Your task to perform on an android device: find snoozed emails in the gmail app Image 0: 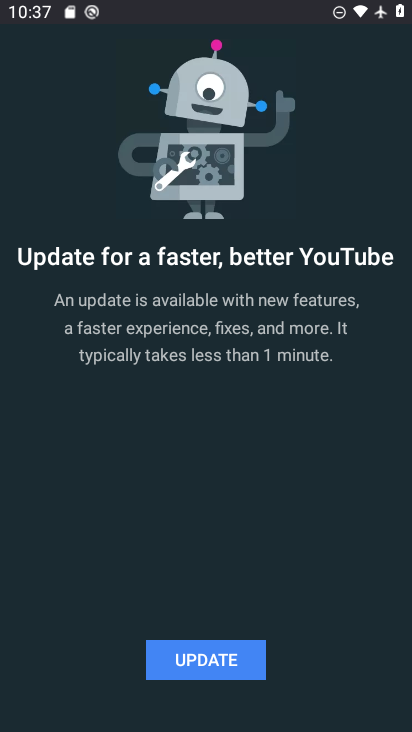
Step 0: press home button
Your task to perform on an android device: find snoozed emails in the gmail app Image 1: 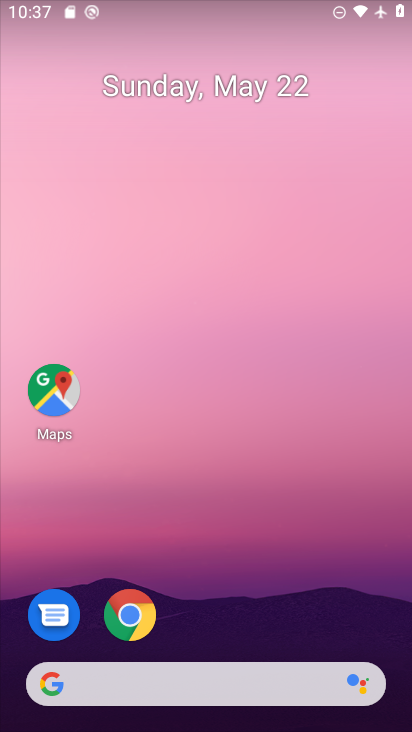
Step 1: drag from (290, 539) to (238, 52)
Your task to perform on an android device: find snoozed emails in the gmail app Image 2: 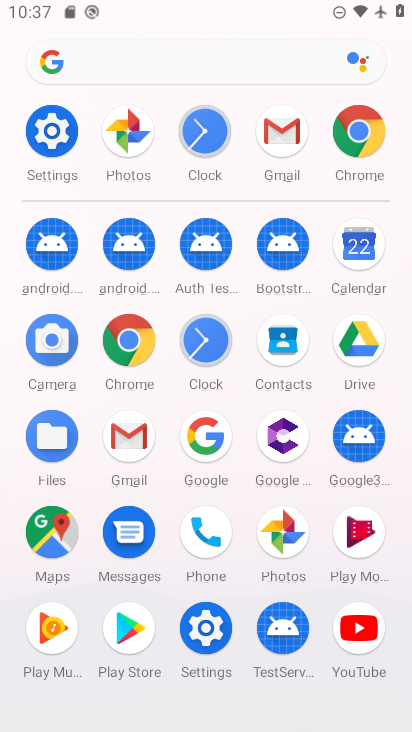
Step 2: click (292, 107)
Your task to perform on an android device: find snoozed emails in the gmail app Image 3: 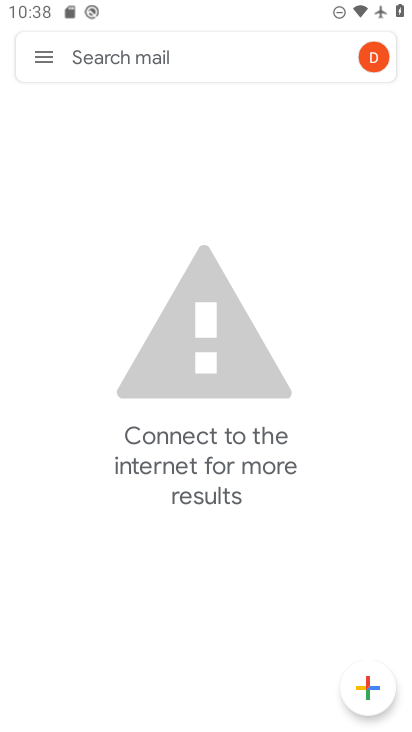
Step 3: click (32, 55)
Your task to perform on an android device: find snoozed emails in the gmail app Image 4: 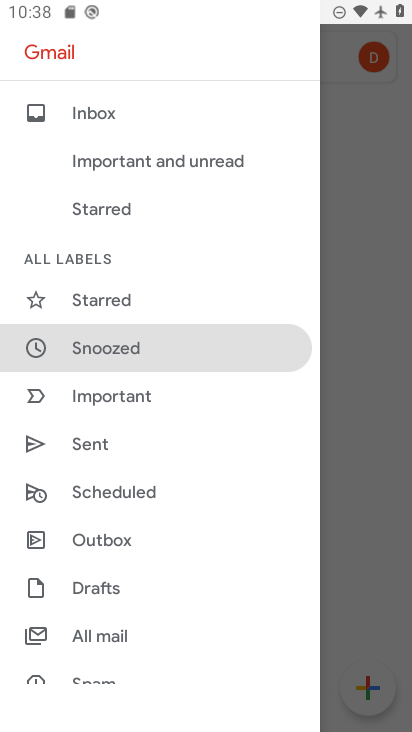
Step 4: drag from (178, 695) to (210, 428)
Your task to perform on an android device: find snoozed emails in the gmail app Image 5: 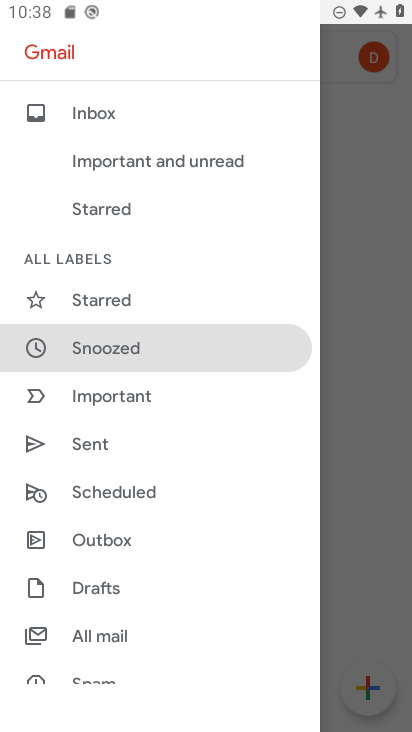
Step 5: click (135, 346)
Your task to perform on an android device: find snoozed emails in the gmail app Image 6: 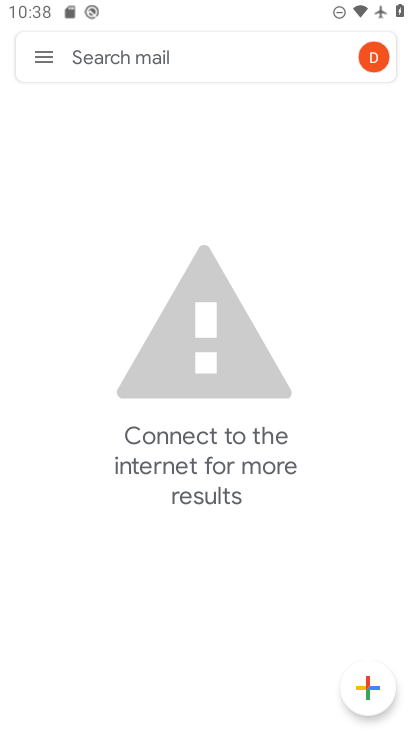
Step 6: task complete